Your task to perform on an android device: Search for hotels in Tokyo Image 0: 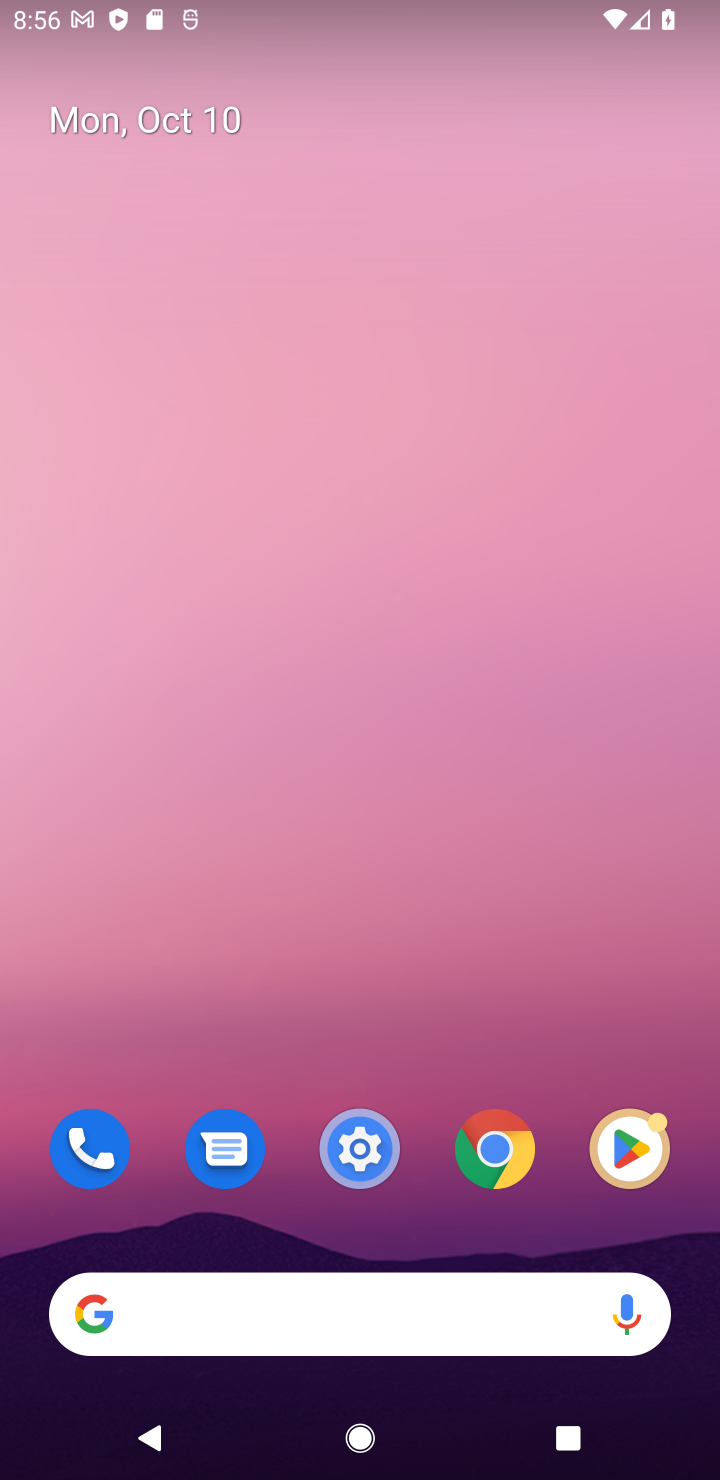
Step 0: click (311, 1316)
Your task to perform on an android device: Search for hotels in Tokyo Image 1: 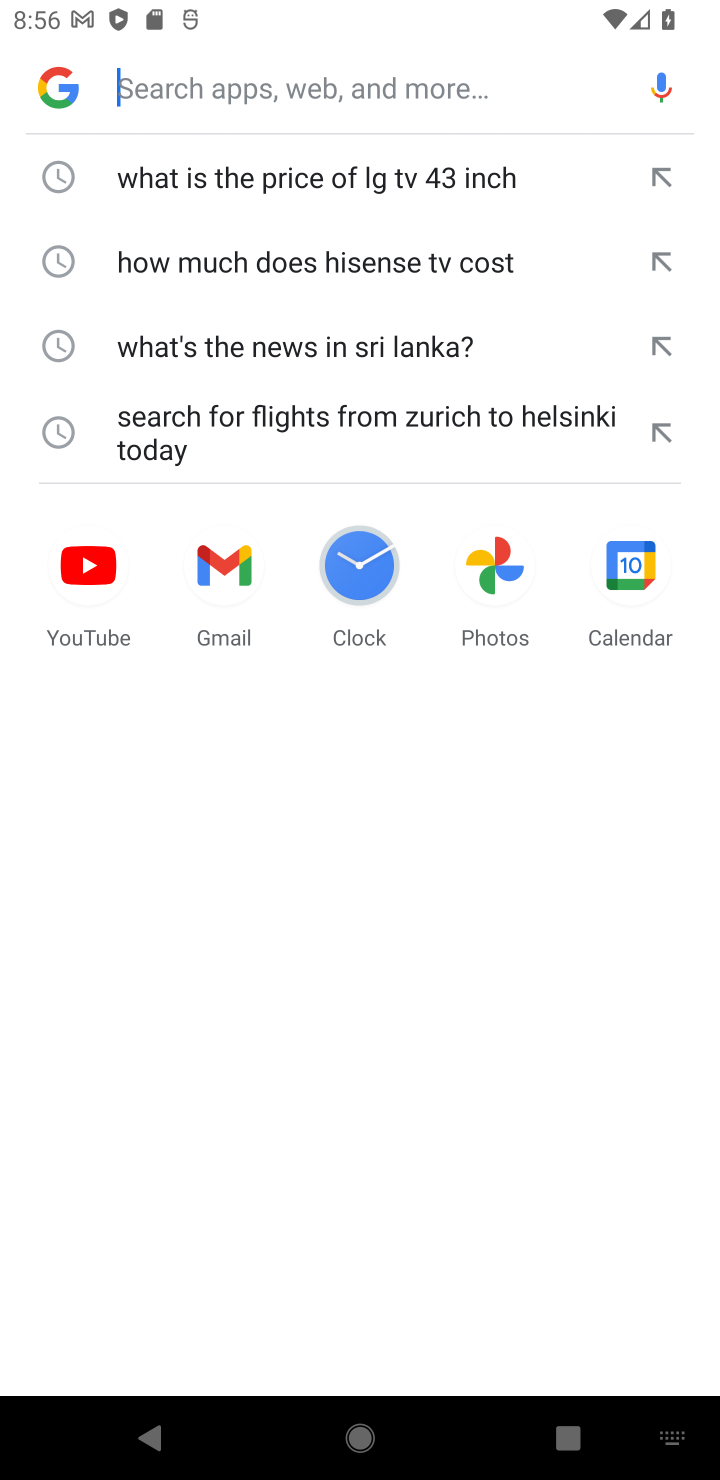
Step 1: type "hotels in Tokyo"
Your task to perform on an android device: Search for hotels in Tokyo Image 2: 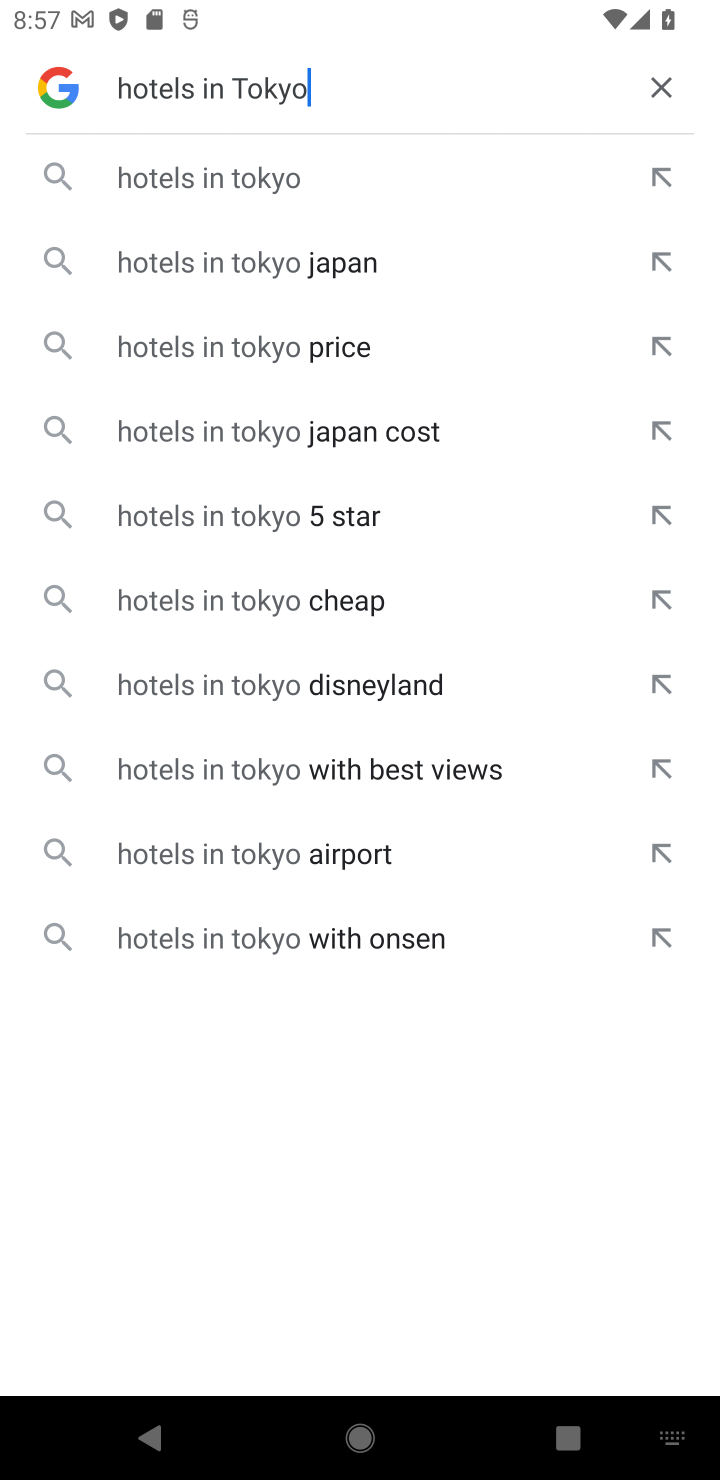
Step 2: click (296, 200)
Your task to perform on an android device: Search for hotels in Tokyo Image 3: 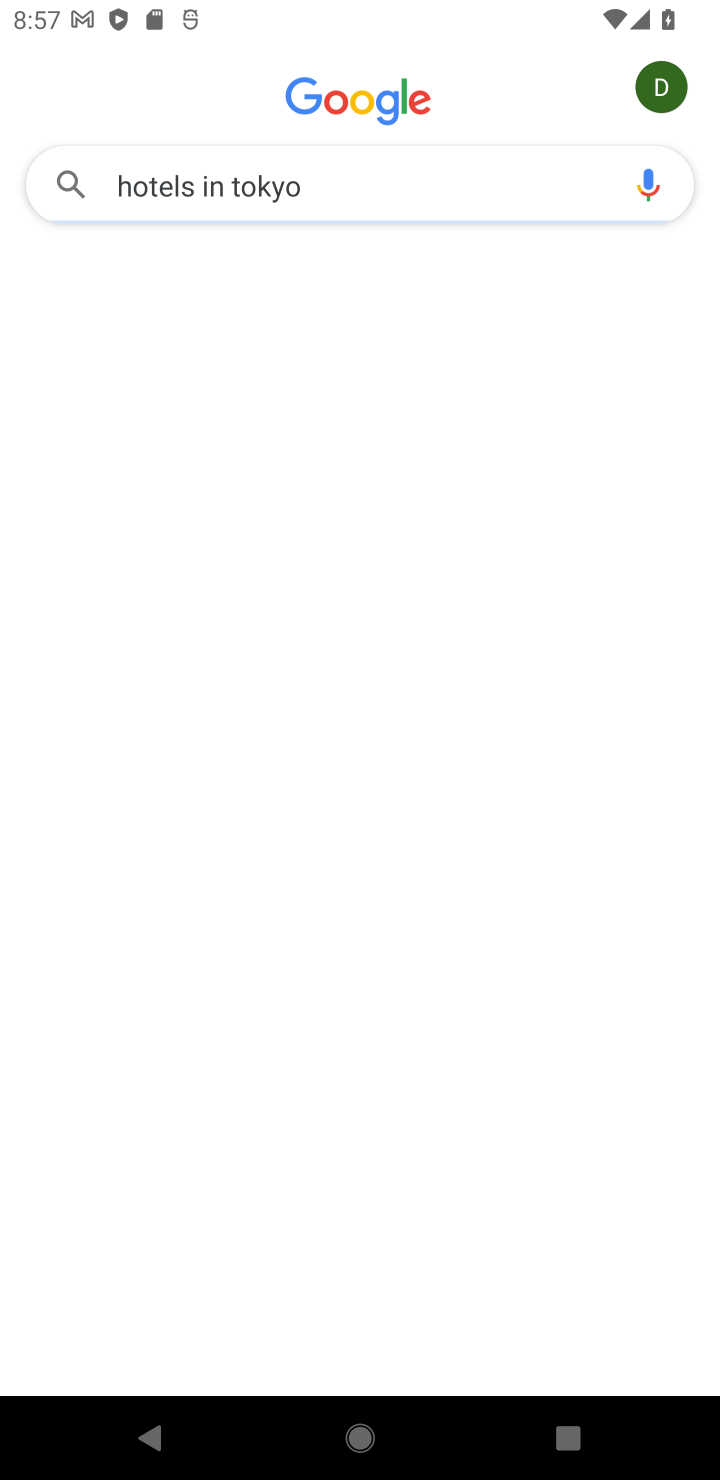
Step 3: task complete